Your task to perform on an android device: Go to Maps Image 0: 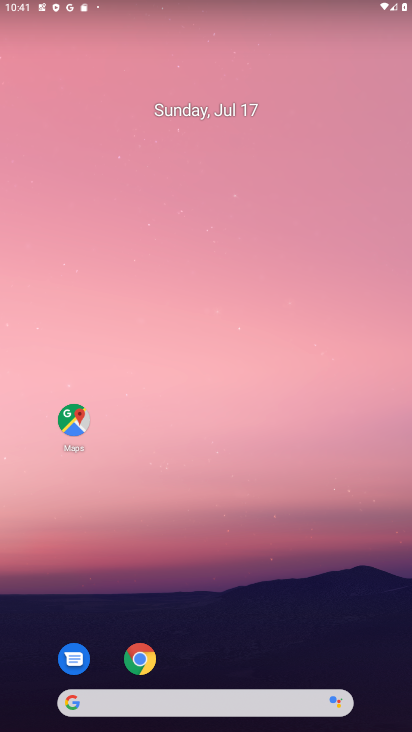
Step 0: click (63, 407)
Your task to perform on an android device: Go to Maps Image 1: 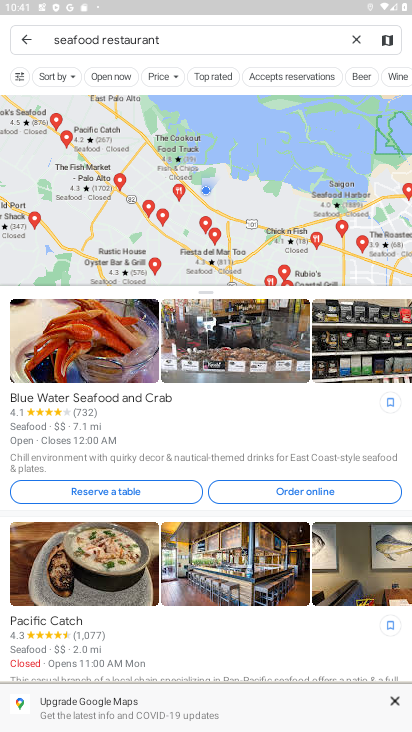
Step 1: task complete